Your task to perform on an android device: What's the weather today? Image 0: 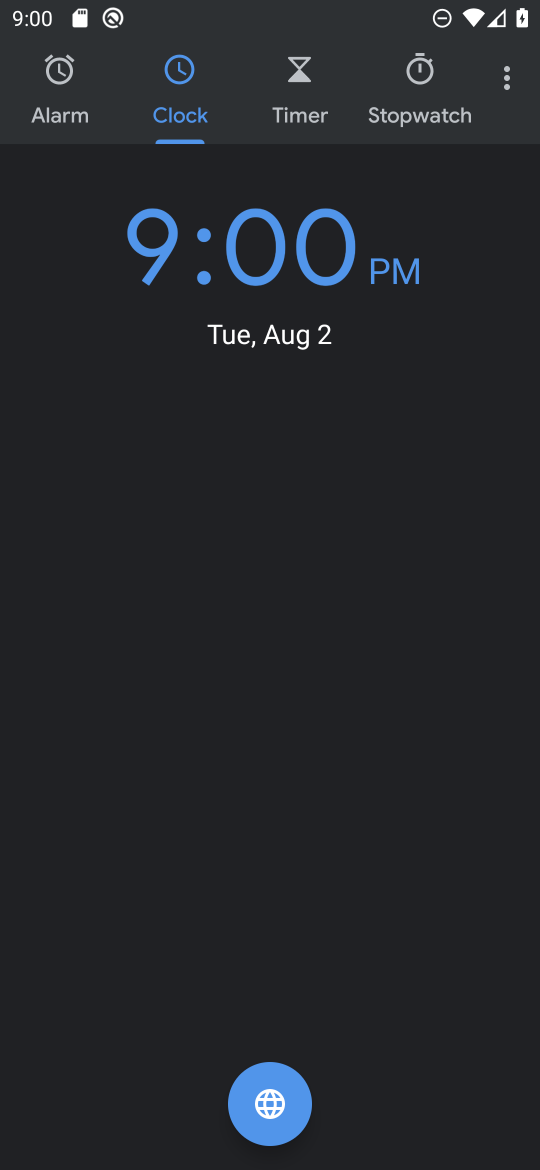
Step 0: press home button
Your task to perform on an android device: What's the weather today? Image 1: 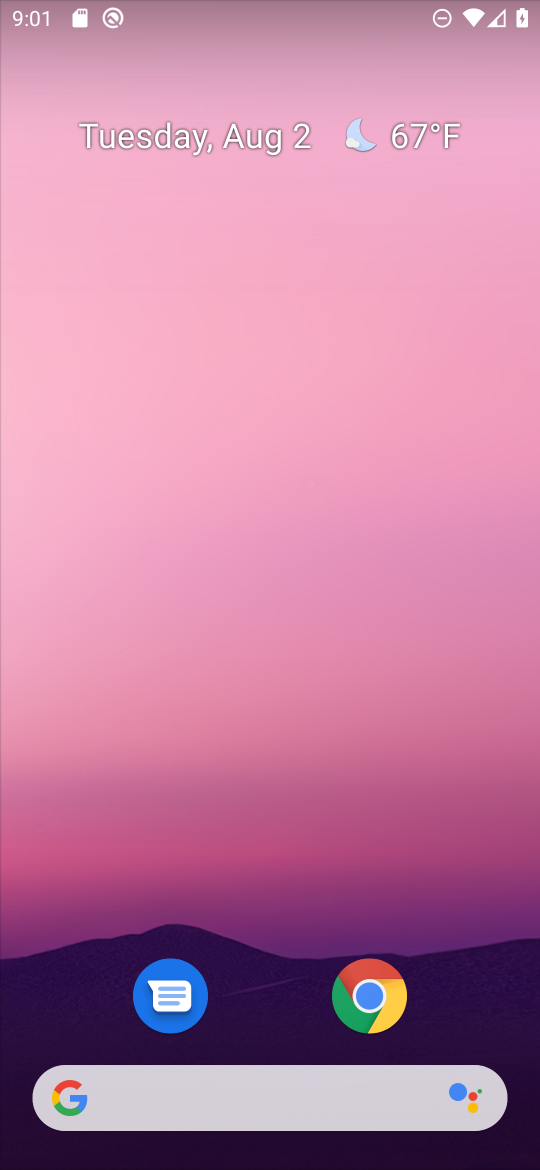
Step 1: click (379, 1000)
Your task to perform on an android device: What's the weather today? Image 2: 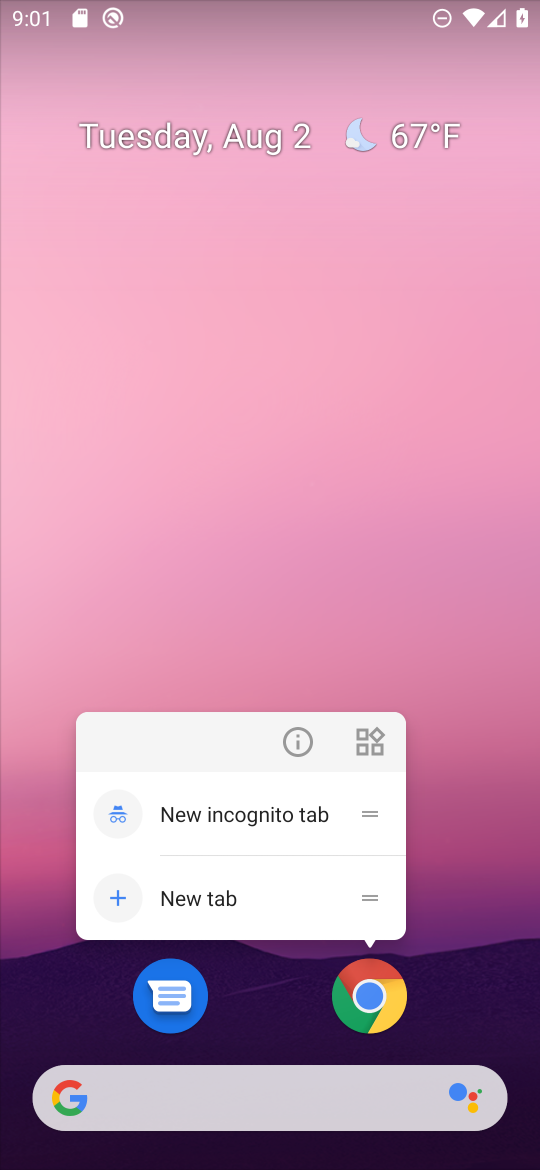
Step 2: click (373, 995)
Your task to perform on an android device: What's the weather today? Image 3: 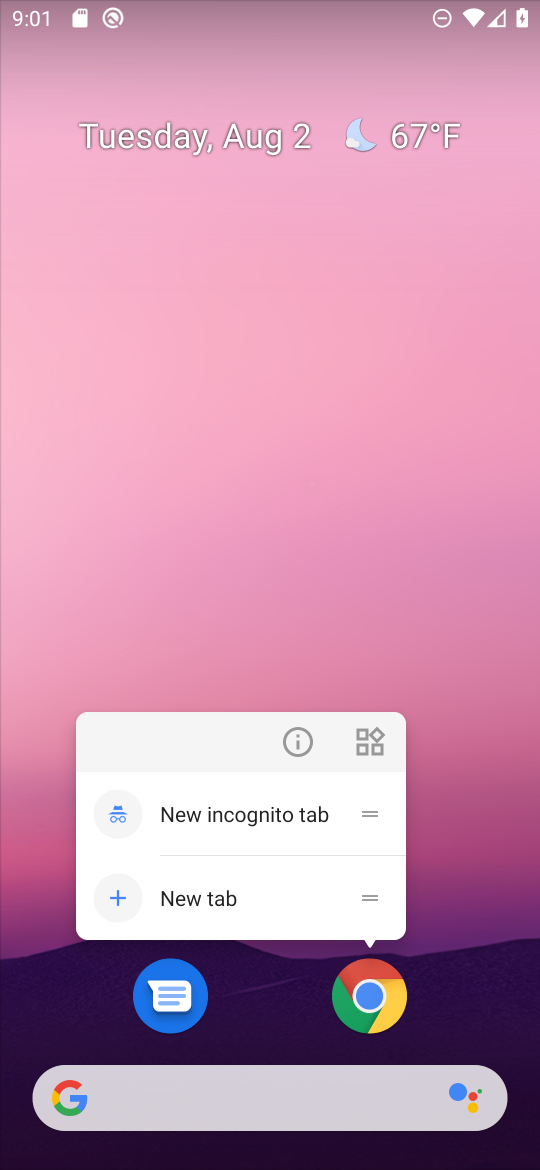
Step 3: click (373, 995)
Your task to perform on an android device: What's the weather today? Image 4: 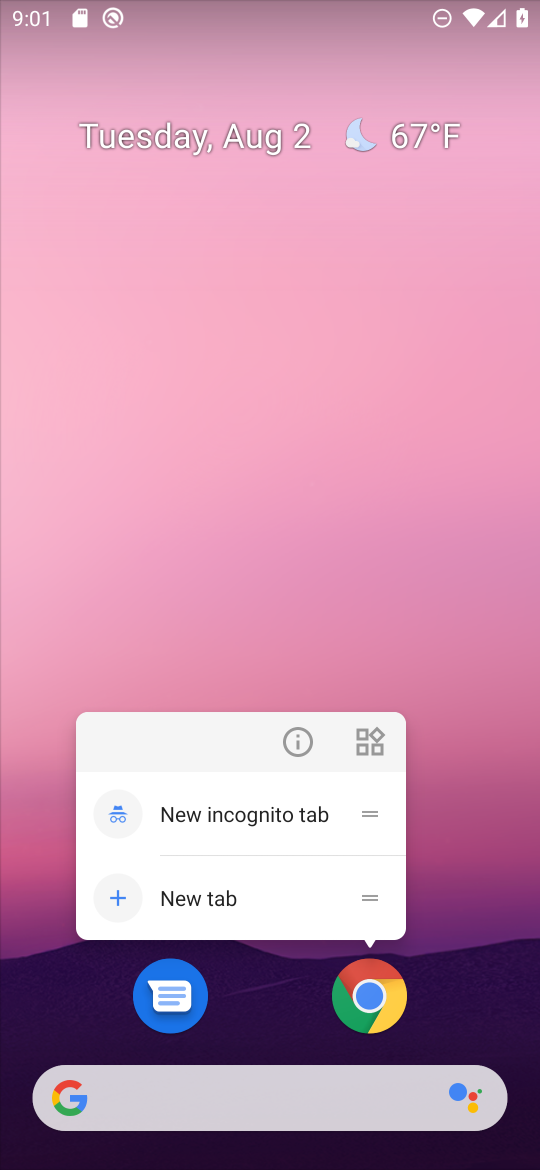
Step 4: click (373, 995)
Your task to perform on an android device: What's the weather today? Image 5: 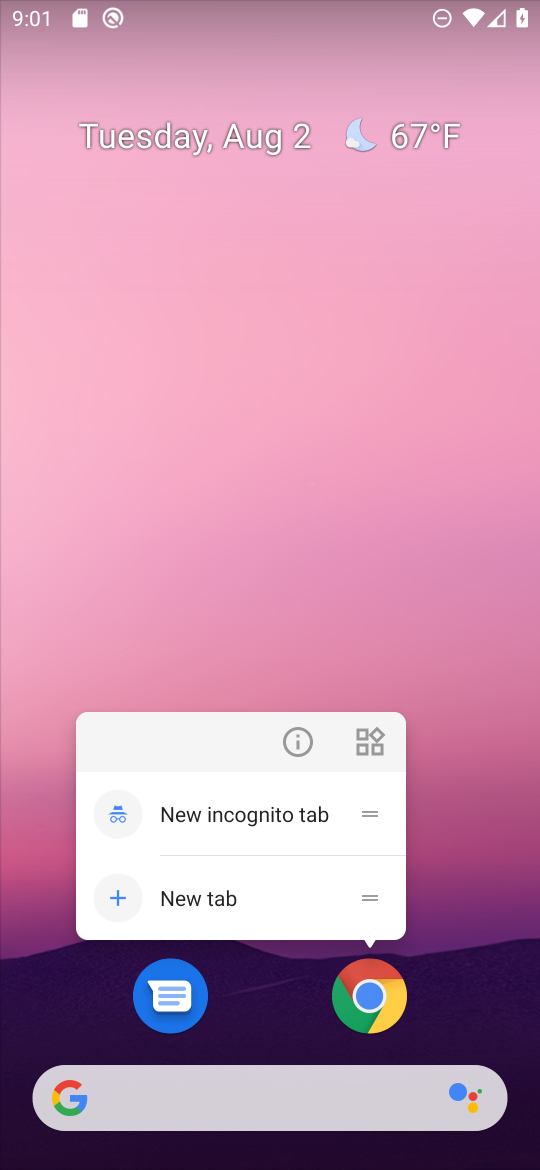
Step 5: drag from (439, 998) to (500, 80)
Your task to perform on an android device: What's the weather today? Image 6: 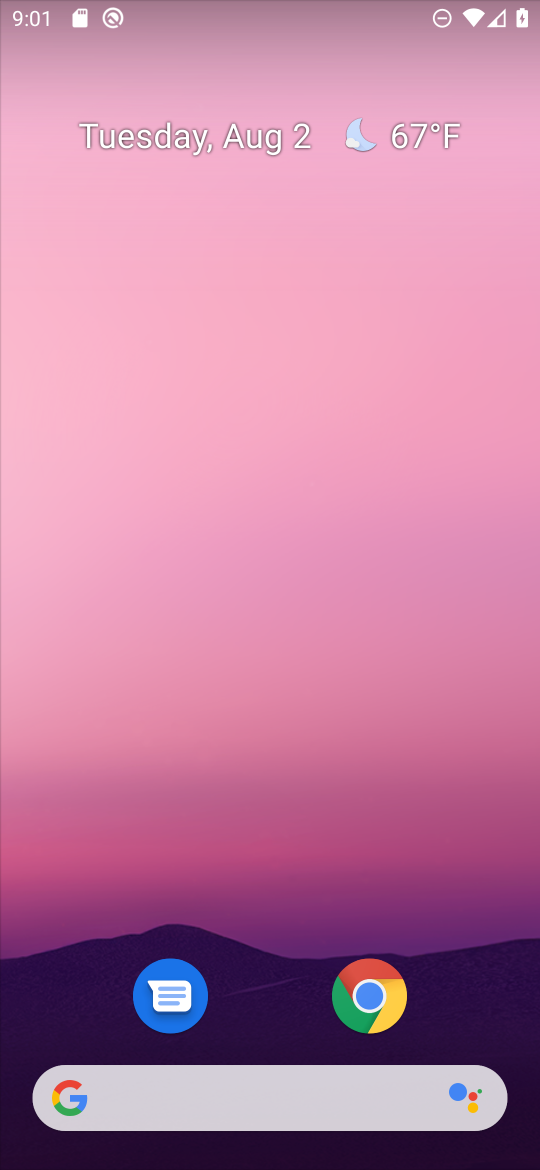
Step 6: drag from (275, 1003) to (368, 22)
Your task to perform on an android device: What's the weather today? Image 7: 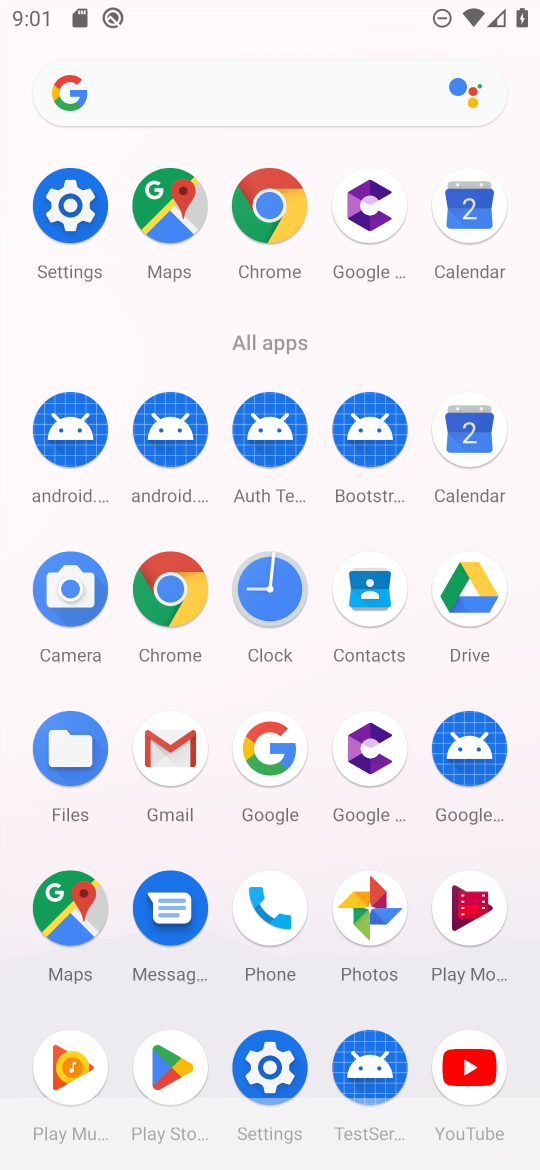
Step 7: click (171, 580)
Your task to perform on an android device: What's the weather today? Image 8: 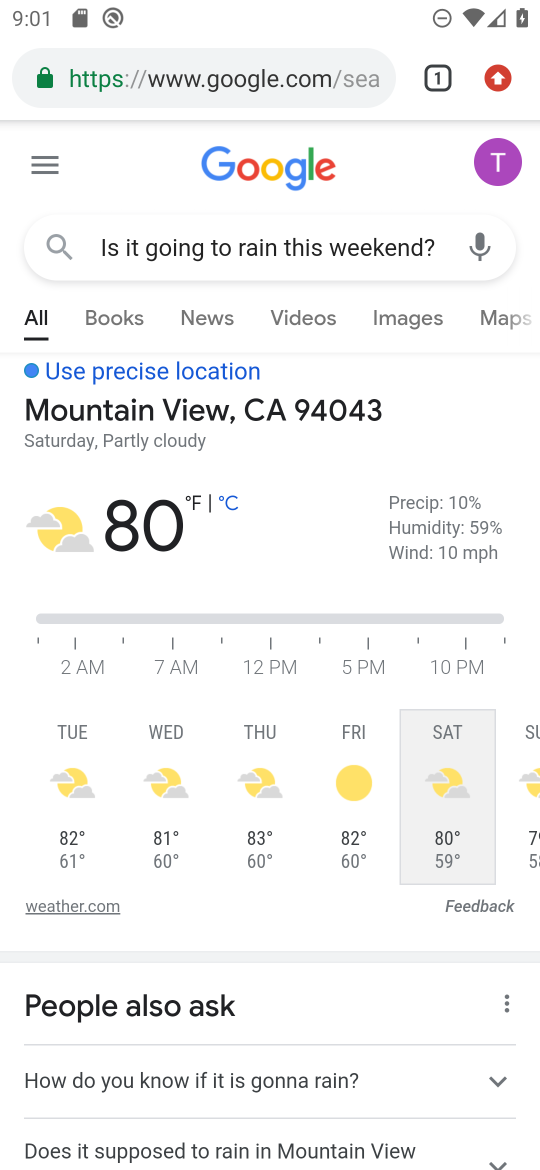
Step 8: click (292, 237)
Your task to perform on an android device: What's the weather today? Image 9: 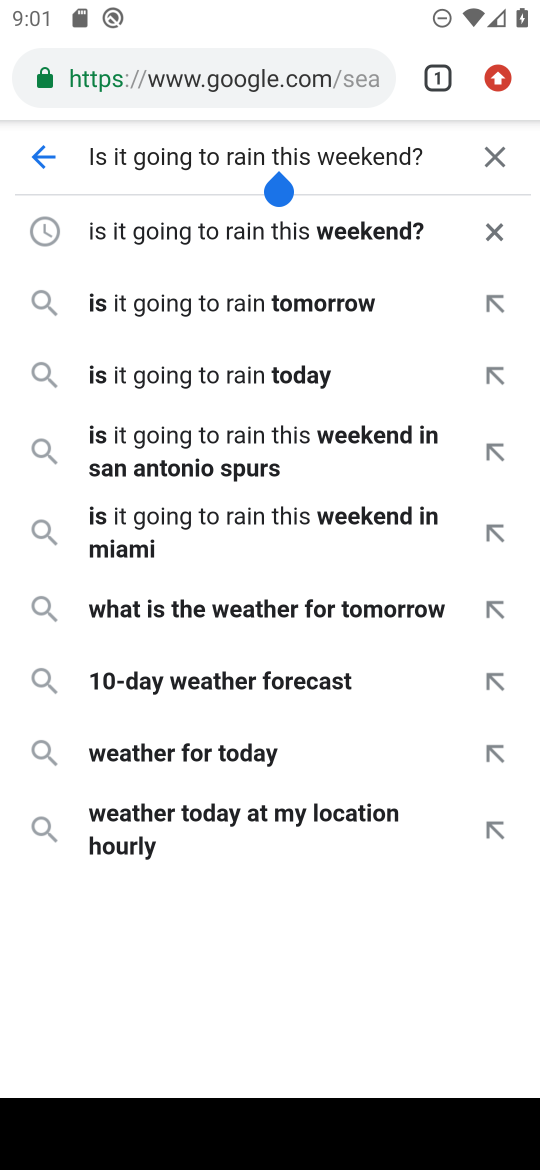
Step 9: click (282, 75)
Your task to perform on an android device: What's the weather today? Image 10: 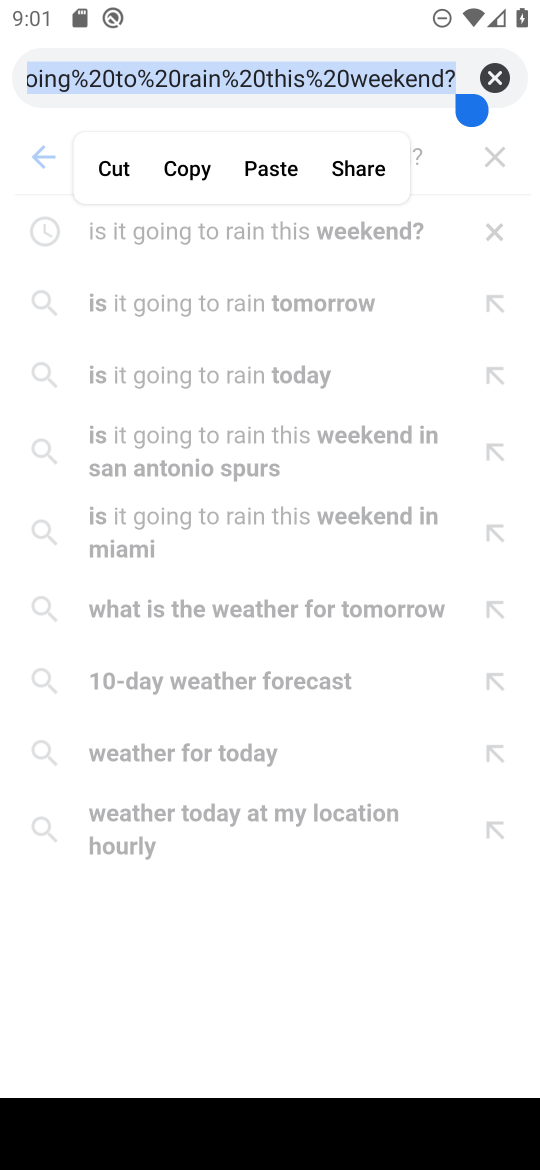
Step 10: click (493, 66)
Your task to perform on an android device: What's the weather today? Image 11: 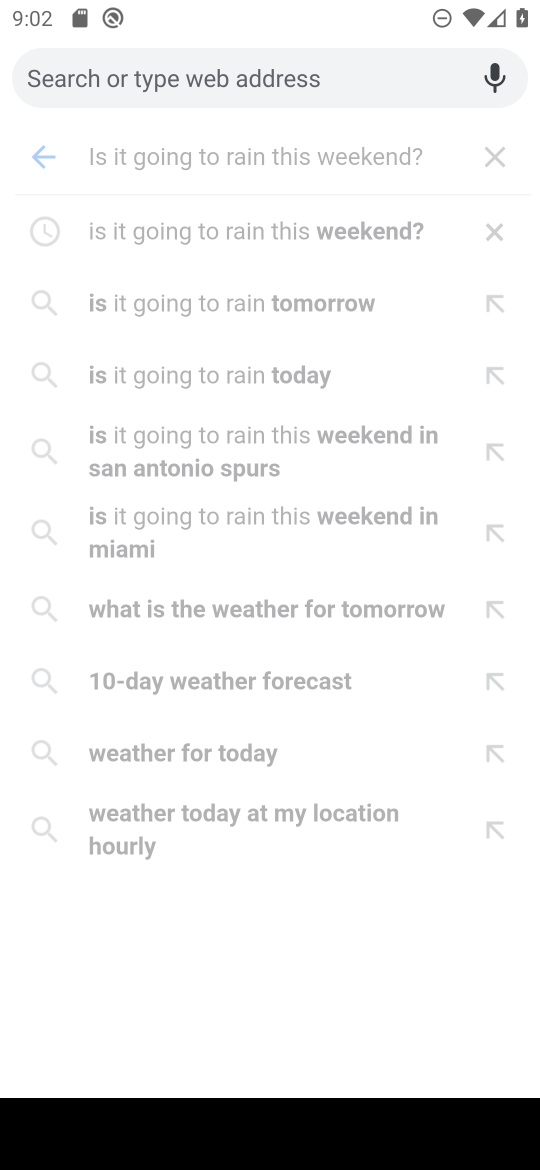
Step 11: type "What's the weather today?"
Your task to perform on an android device: What's the weather today? Image 12: 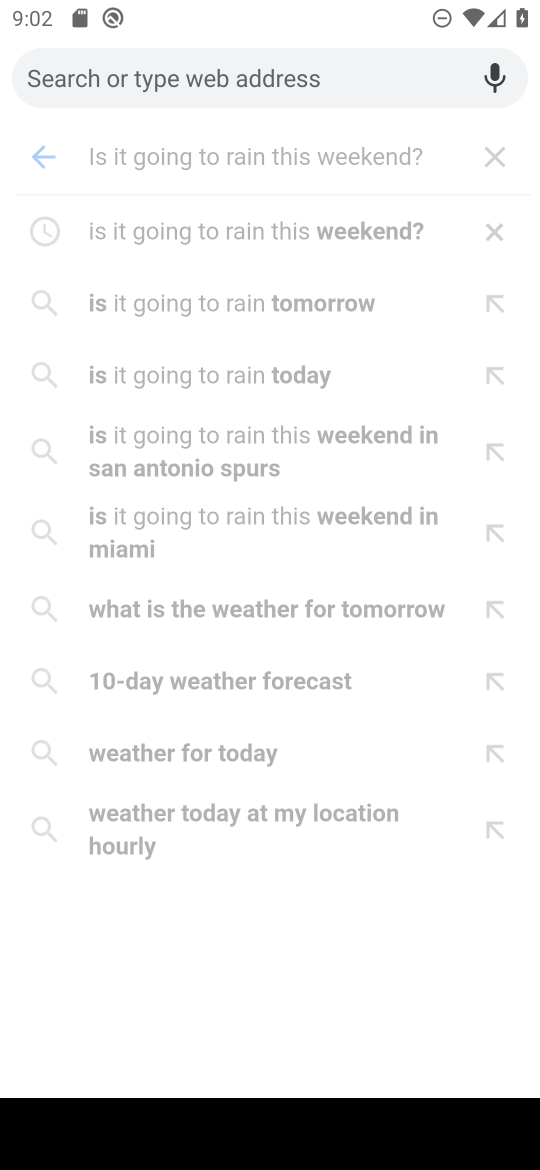
Step 12: click (137, 82)
Your task to perform on an android device: What's the weather today? Image 13: 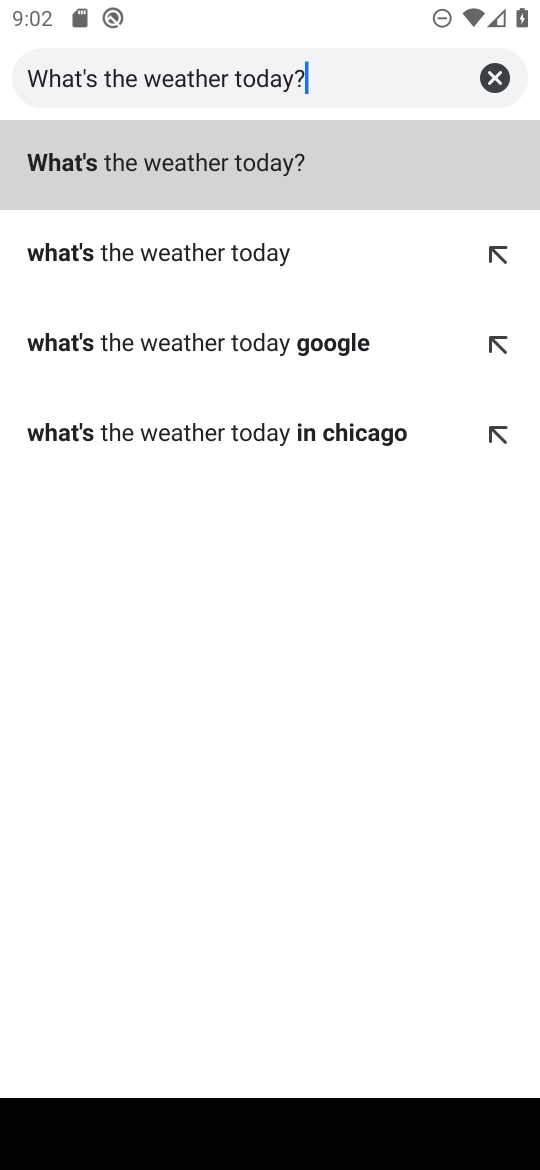
Step 13: type ""
Your task to perform on an android device: What's the weather today? Image 14: 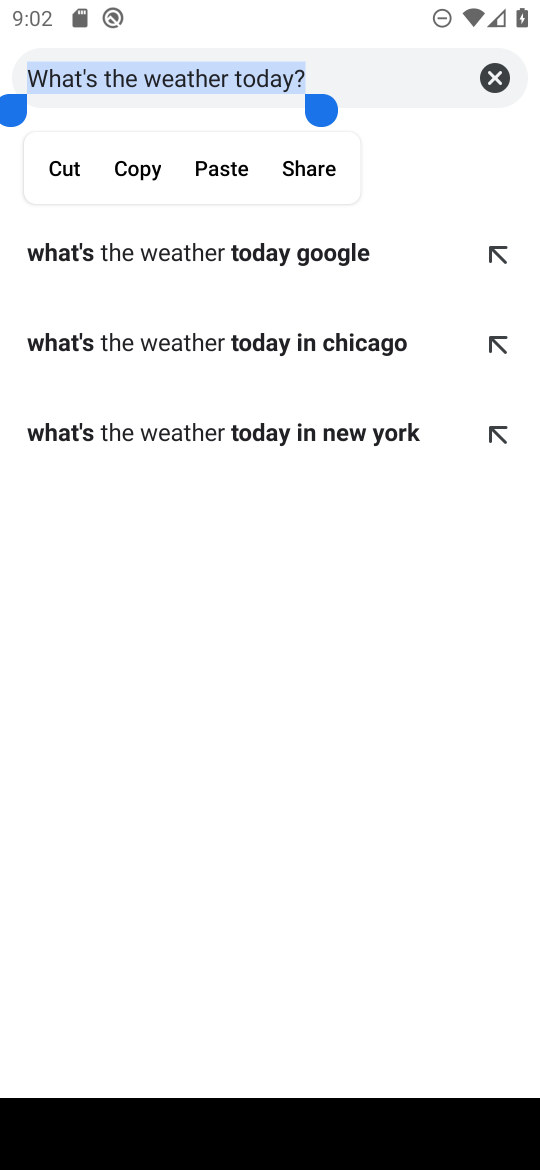
Step 14: click (386, 151)
Your task to perform on an android device: What's the weather today? Image 15: 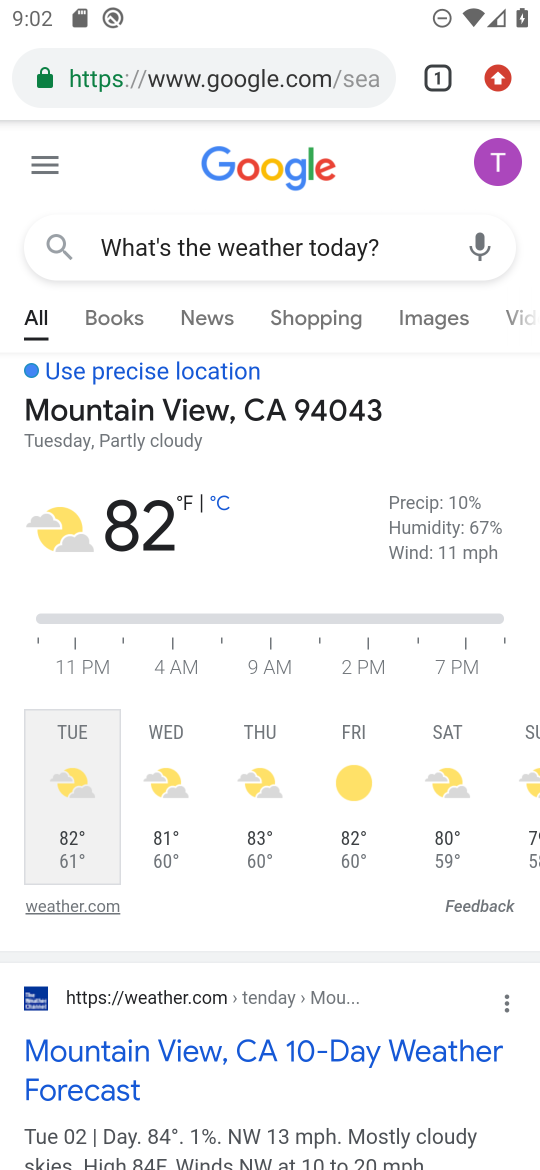
Step 15: task complete